Your task to perform on an android device: clear all cookies in the chrome app Image 0: 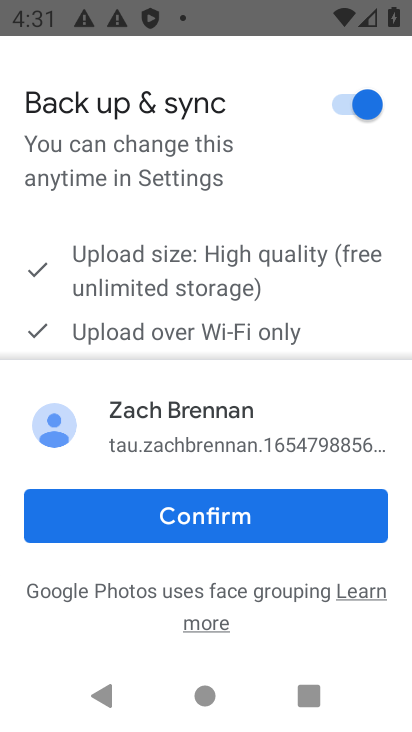
Step 0: press home button
Your task to perform on an android device: clear all cookies in the chrome app Image 1: 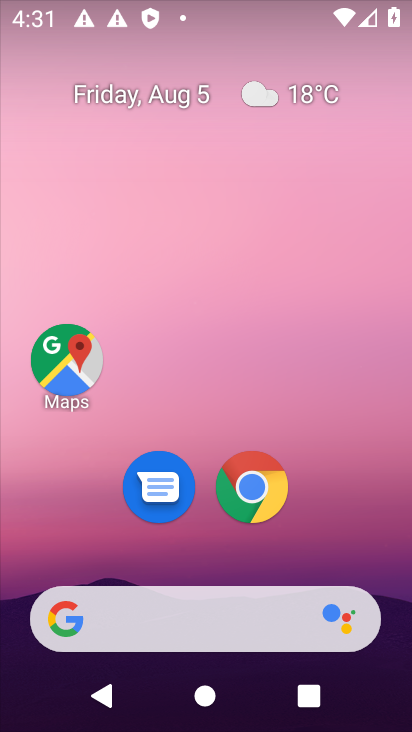
Step 1: click (264, 472)
Your task to perform on an android device: clear all cookies in the chrome app Image 2: 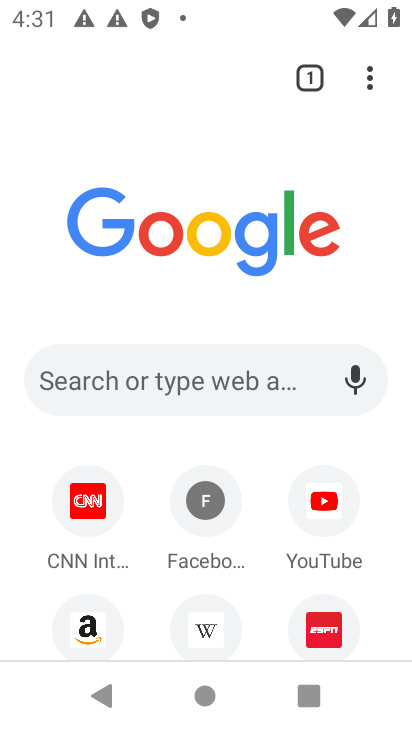
Step 2: click (91, 435)
Your task to perform on an android device: clear all cookies in the chrome app Image 3: 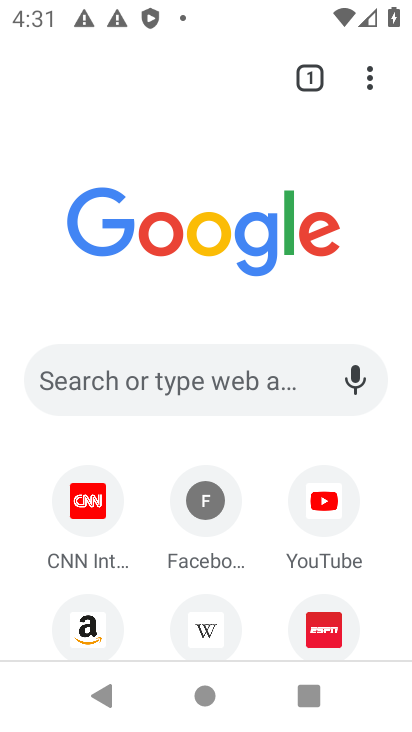
Step 3: click (358, 84)
Your task to perform on an android device: clear all cookies in the chrome app Image 4: 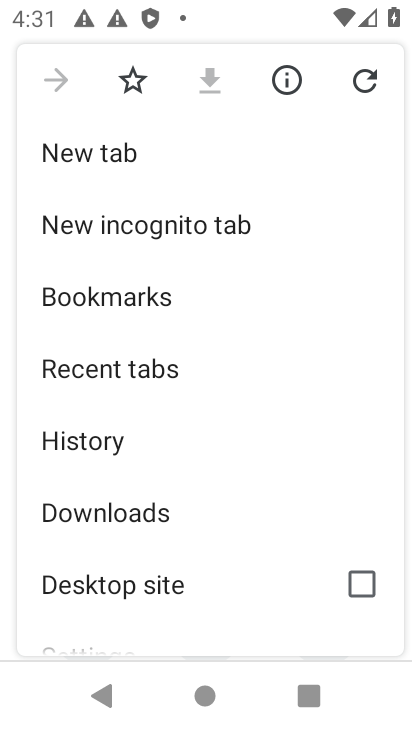
Step 4: click (96, 439)
Your task to perform on an android device: clear all cookies in the chrome app Image 5: 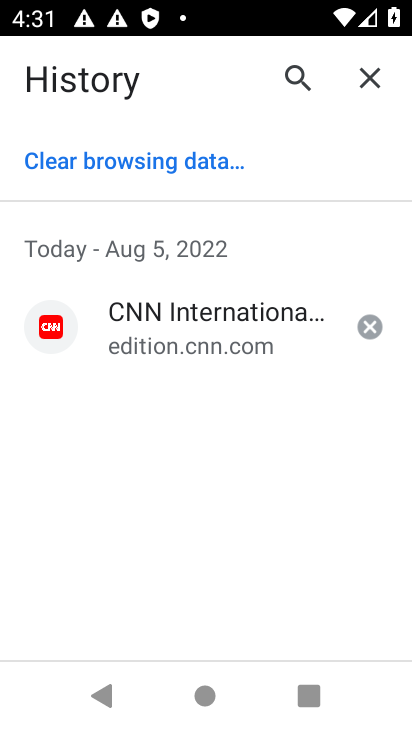
Step 5: click (188, 159)
Your task to perform on an android device: clear all cookies in the chrome app Image 6: 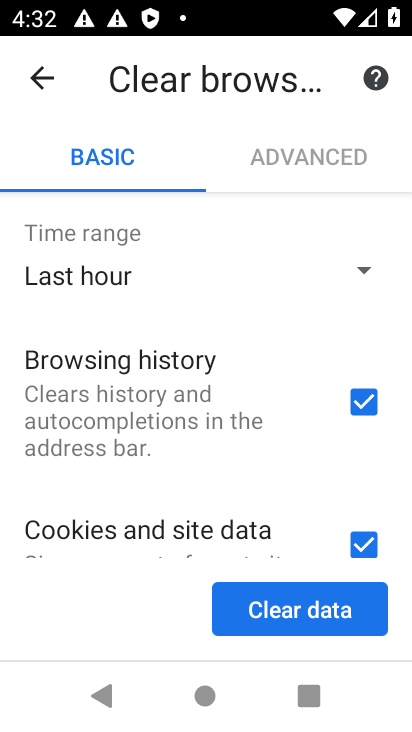
Step 6: click (358, 407)
Your task to perform on an android device: clear all cookies in the chrome app Image 7: 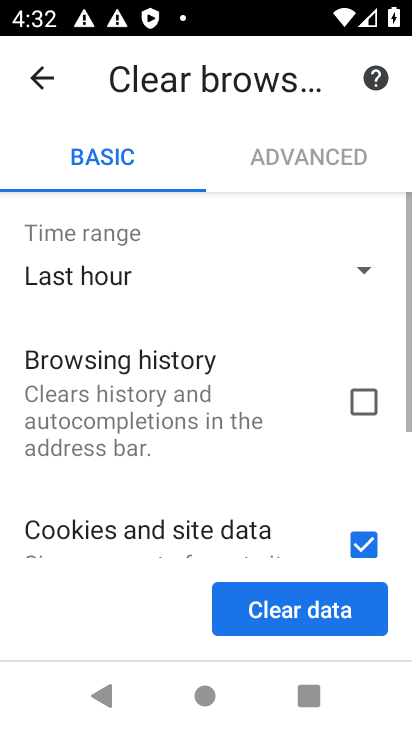
Step 7: click (315, 610)
Your task to perform on an android device: clear all cookies in the chrome app Image 8: 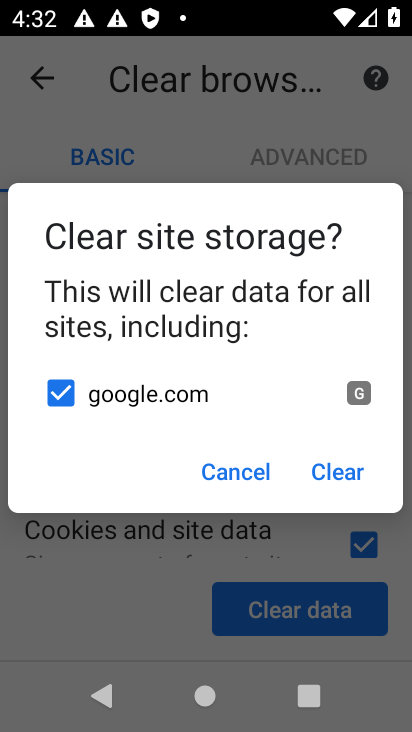
Step 8: click (349, 464)
Your task to perform on an android device: clear all cookies in the chrome app Image 9: 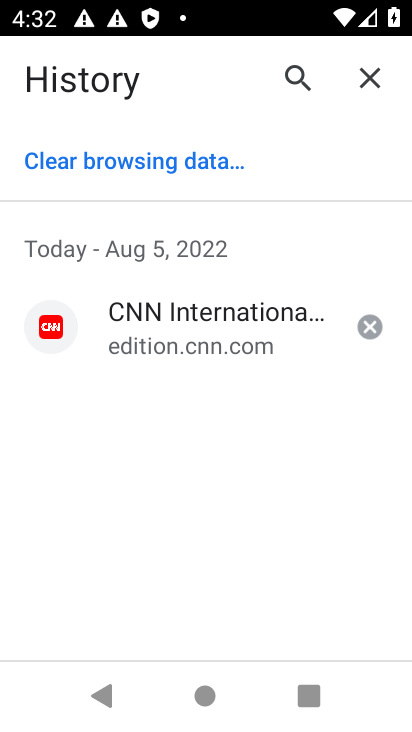
Step 9: task complete